Your task to perform on an android device: Play the last video I watched on Youtube Image 0: 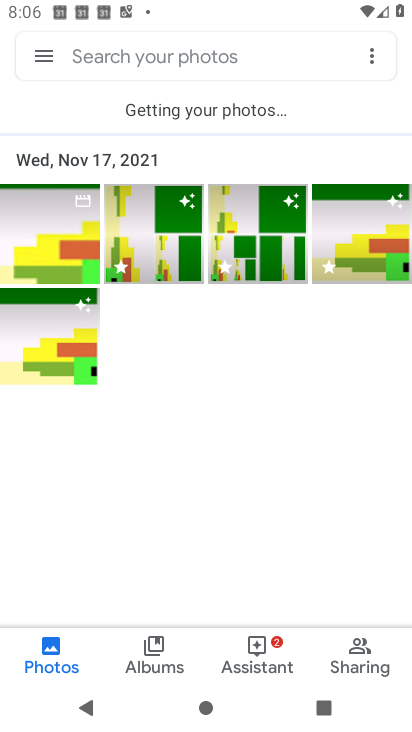
Step 0: press home button
Your task to perform on an android device: Play the last video I watched on Youtube Image 1: 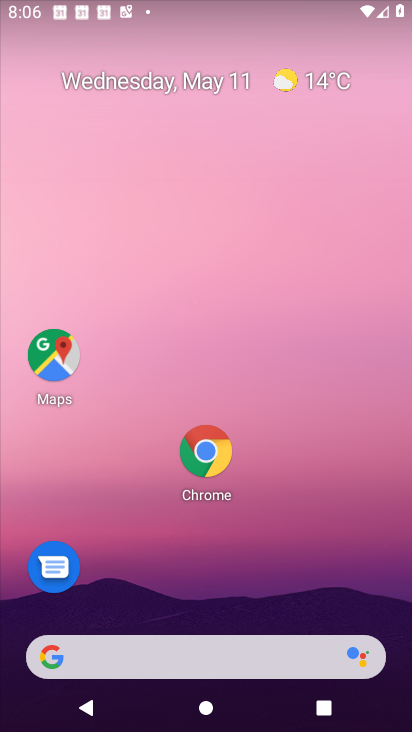
Step 1: drag from (230, 650) to (338, 154)
Your task to perform on an android device: Play the last video I watched on Youtube Image 2: 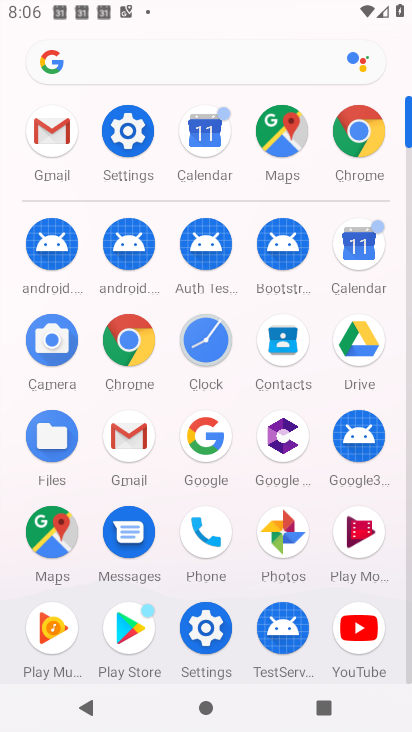
Step 2: click (356, 637)
Your task to perform on an android device: Play the last video I watched on Youtube Image 3: 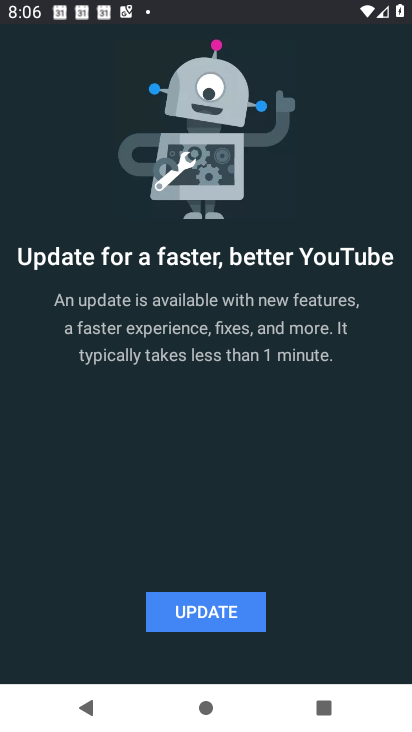
Step 3: click (204, 603)
Your task to perform on an android device: Play the last video I watched on Youtube Image 4: 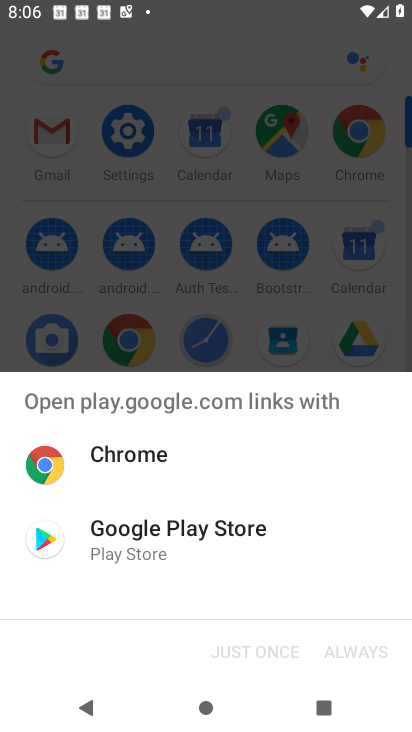
Step 4: click (166, 534)
Your task to perform on an android device: Play the last video I watched on Youtube Image 5: 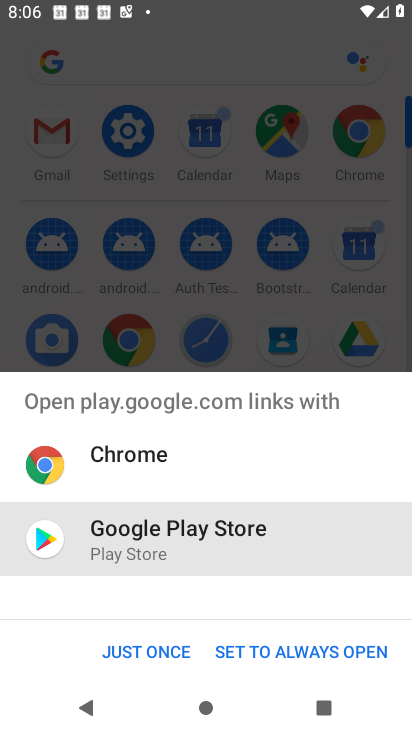
Step 5: click (155, 648)
Your task to perform on an android device: Play the last video I watched on Youtube Image 6: 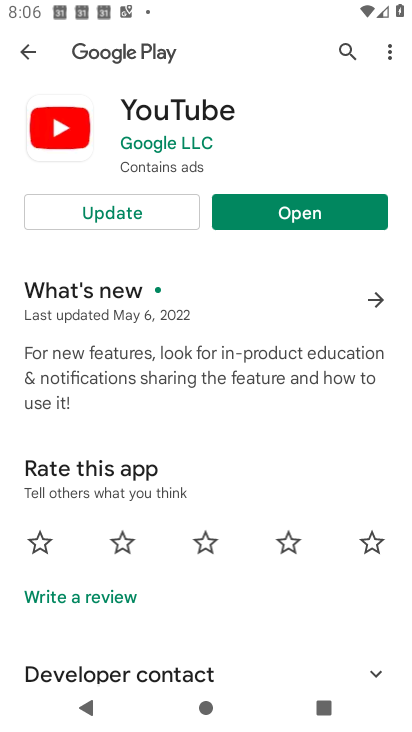
Step 6: click (90, 208)
Your task to perform on an android device: Play the last video I watched on Youtube Image 7: 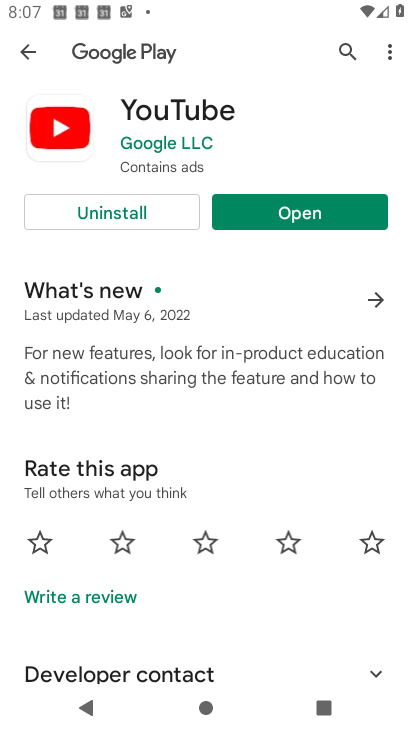
Step 7: click (259, 210)
Your task to perform on an android device: Play the last video I watched on Youtube Image 8: 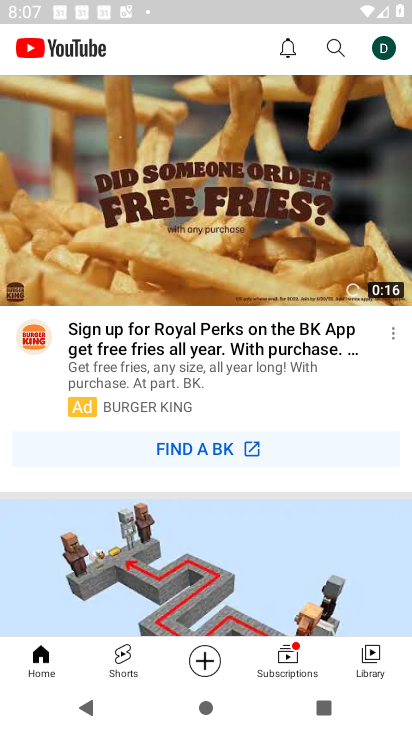
Step 8: click (366, 659)
Your task to perform on an android device: Play the last video I watched on Youtube Image 9: 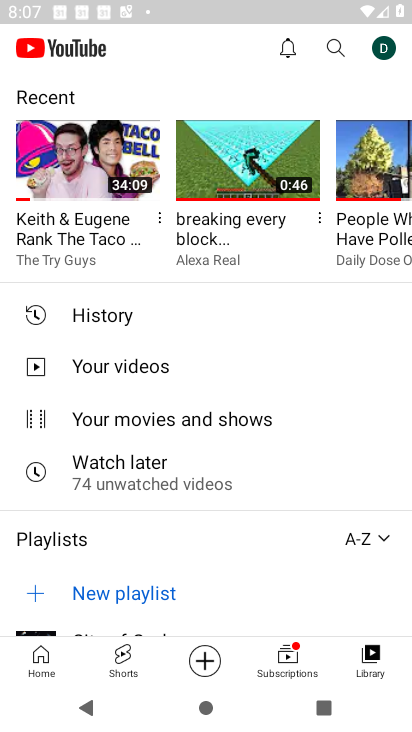
Step 9: click (93, 186)
Your task to perform on an android device: Play the last video I watched on Youtube Image 10: 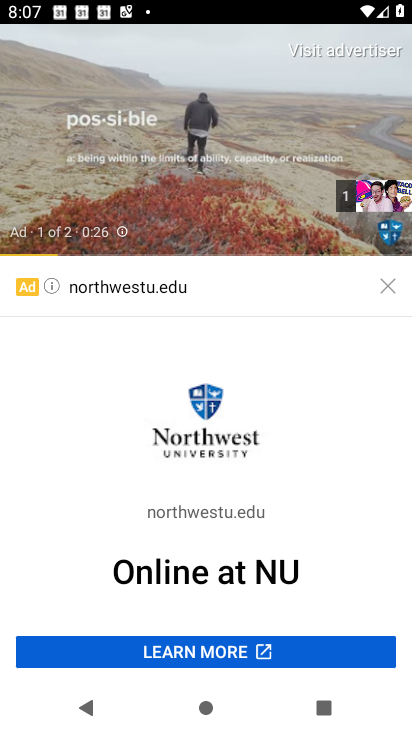
Step 10: click (384, 283)
Your task to perform on an android device: Play the last video I watched on Youtube Image 11: 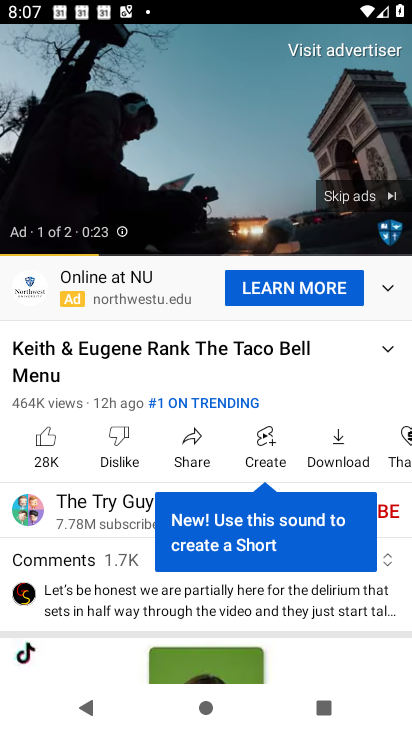
Step 11: click (365, 201)
Your task to perform on an android device: Play the last video I watched on Youtube Image 12: 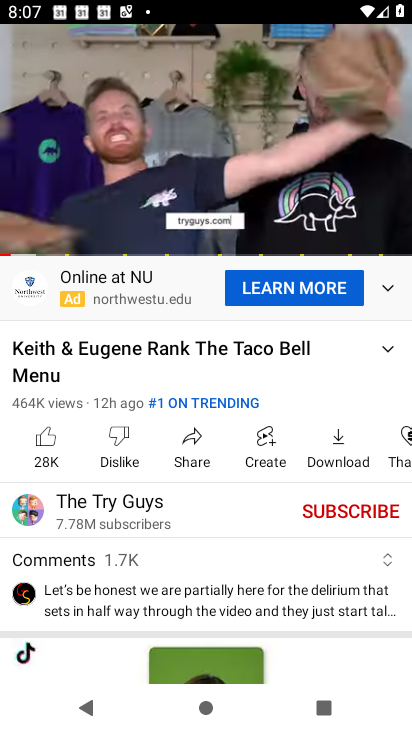
Step 12: click (195, 128)
Your task to perform on an android device: Play the last video I watched on Youtube Image 13: 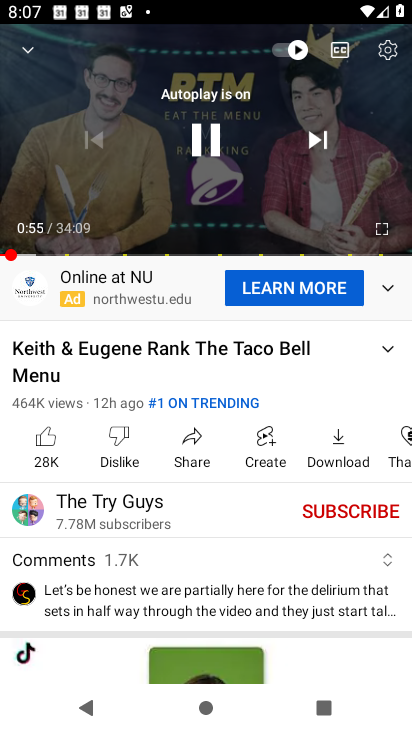
Step 13: click (205, 141)
Your task to perform on an android device: Play the last video I watched on Youtube Image 14: 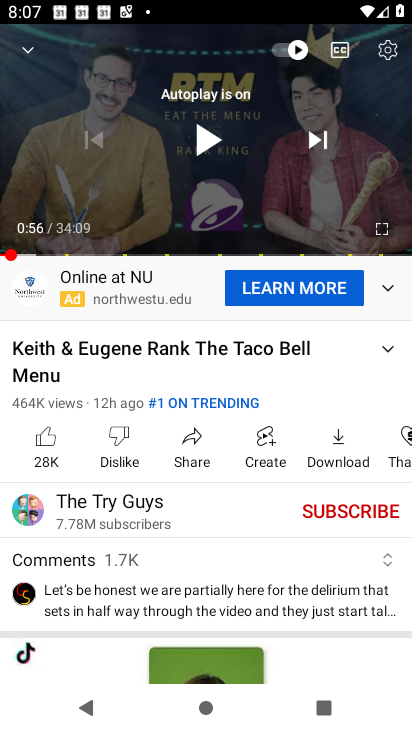
Step 14: task complete